Your task to perform on an android device: Open Google Maps and go to "Timeline" Image 0: 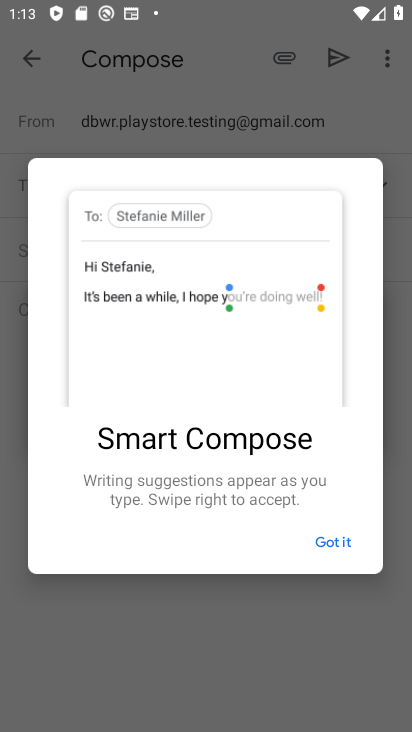
Step 0: press home button
Your task to perform on an android device: Open Google Maps and go to "Timeline" Image 1: 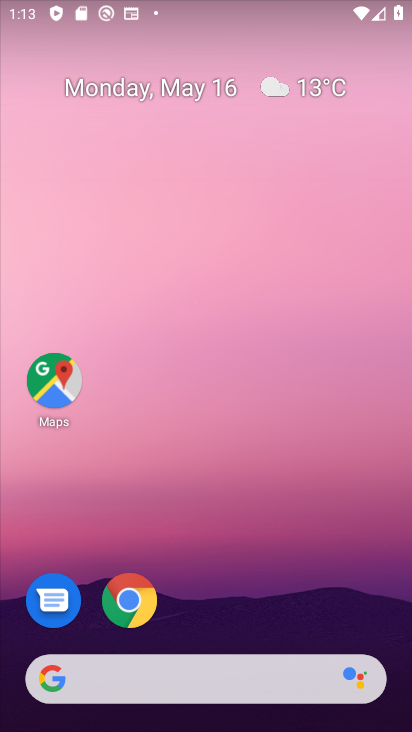
Step 1: click (45, 380)
Your task to perform on an android device: Open Google Maps and go to "Timeline" Image 2: 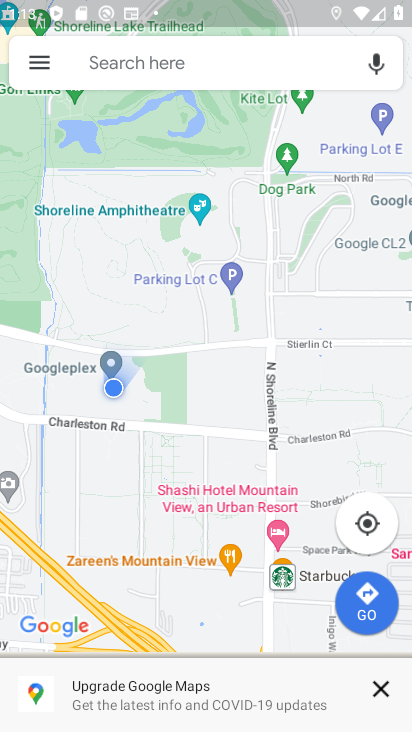
Step 2: click (37, 55)
Your task to perform on an android device: Open Google Maps and go to "Timeline" Image 3: 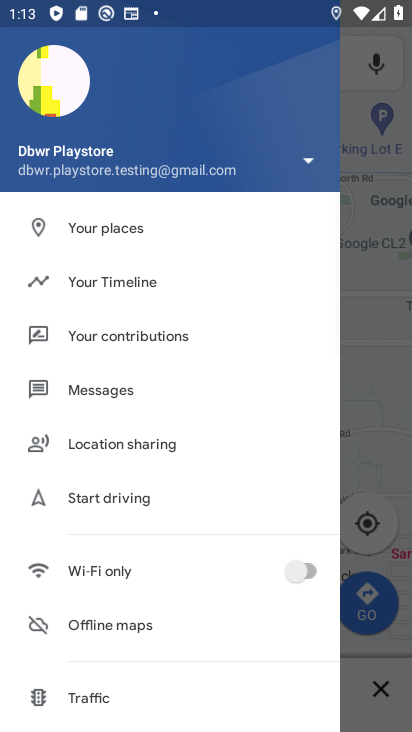
Step 3: click (77, 280)
Your task to perform on an android device: Open Google Maps and go to "Timeline" Image 4: 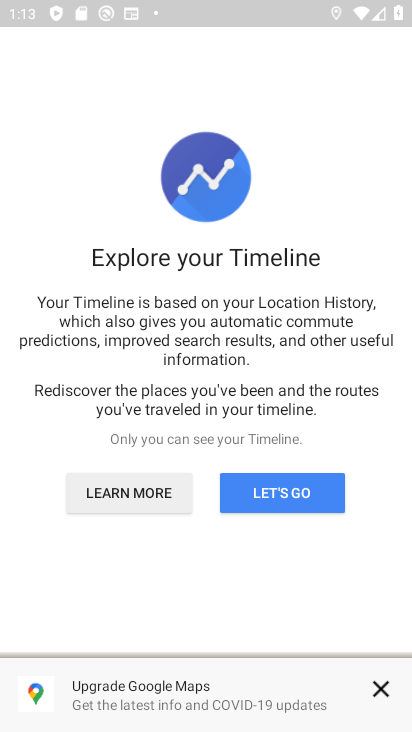
Step 4: task complete